Your task to perform on an android device: toggle notification dots Image 0: 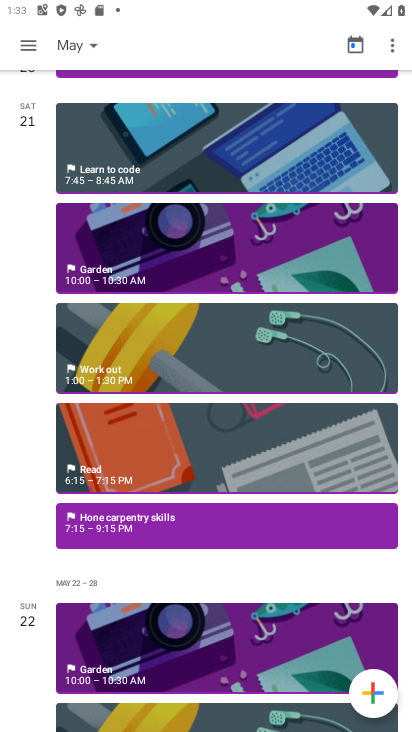
Step 0: press home button
Your task to perform on an android device: toggle notification dots Image 1: 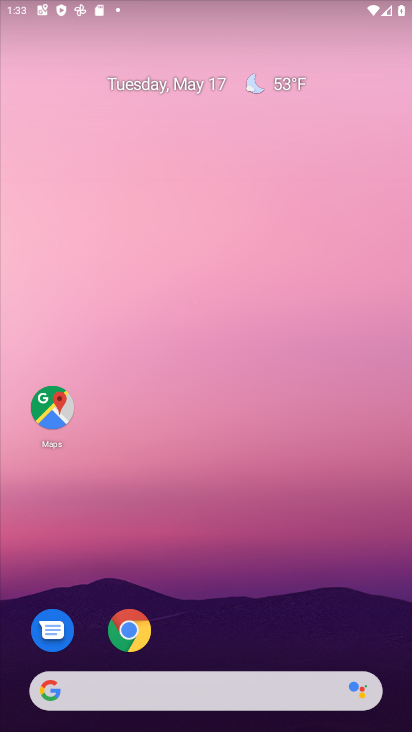
Step 1: drag from (210, 646) to (225, 177)
Your task to perform on an android device: toggle notification dots Image 2: 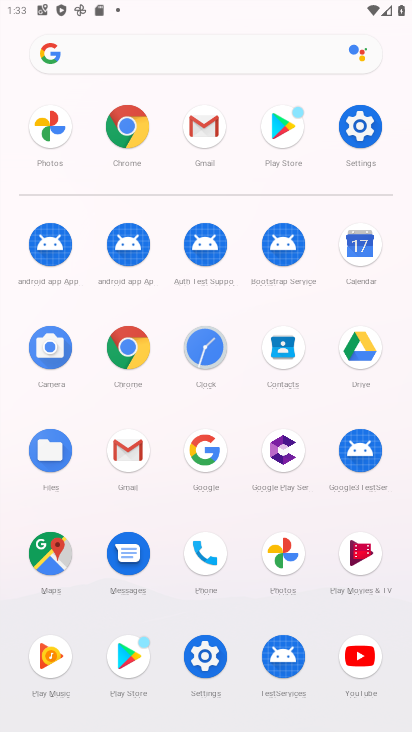
Step 2: click (368, 146)
Your task to perform on an android device: toggle notification dots Image 3: 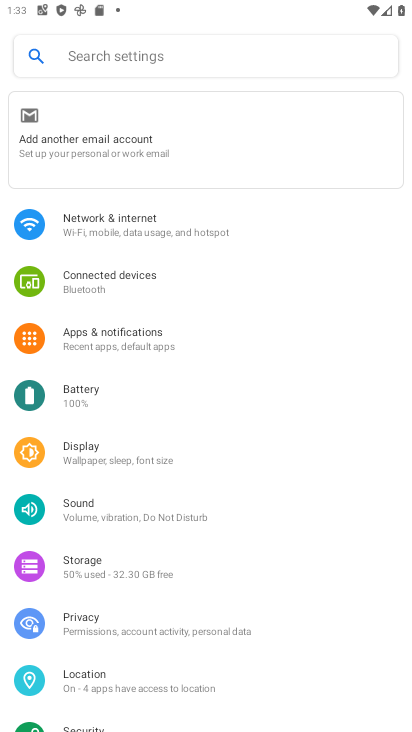
Step 3: click (144, 344)
Your task to perform on an android device: toggle notification dots Image 4: 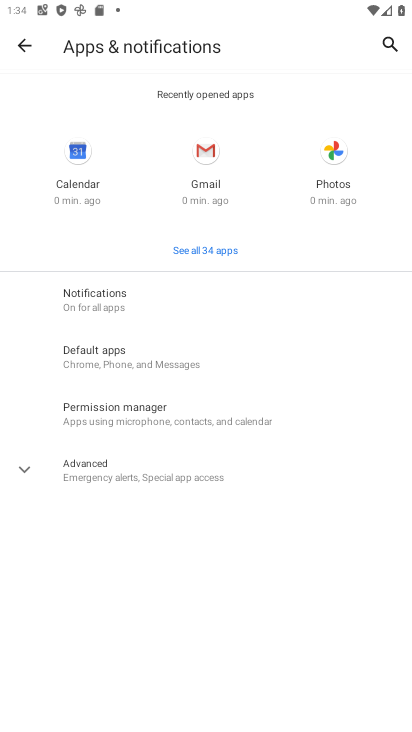
Step 4: click (209, 314)
Your task to perform on an android device: toggle notification dots Image 5: 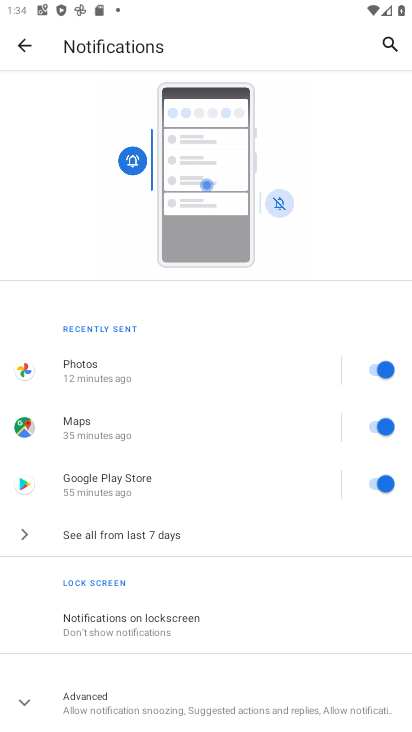
Step 5: drag from (179, 621) to (237, 365)
Your task to perform on an android device: toggle notification dots Image 6: 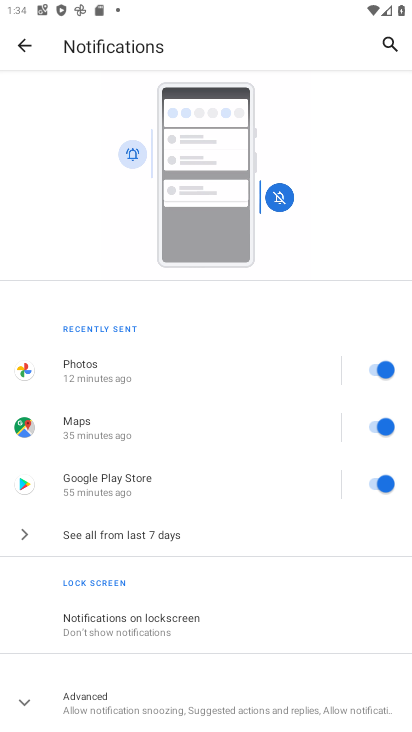
Step 6: click (144, 703)
Your task to perform on an android device: toggle notification dots Image 7: 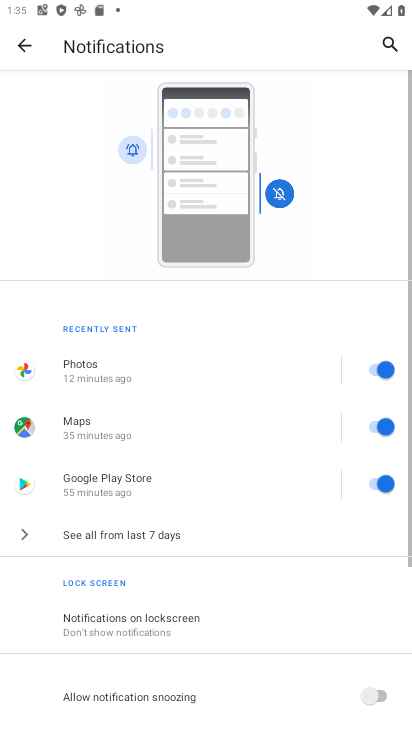
Step 7: drag from (168, 565) to (215, 328)
Your task to perform on an android device: toggle notification dots Image 8: 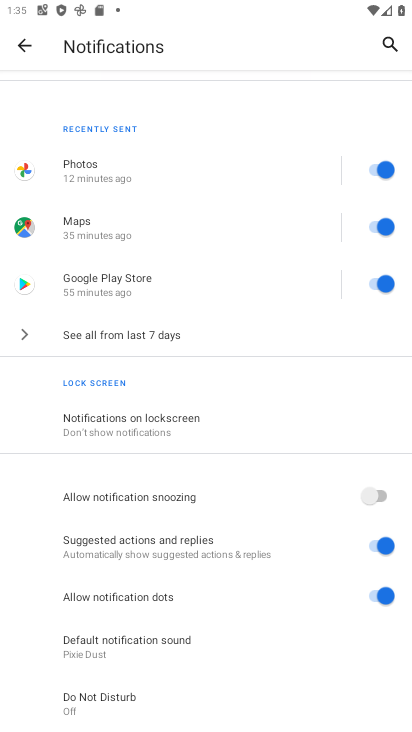
Step 8: click (379, 592)
Your task to perform on an android device: toggle notification dots Image 9: 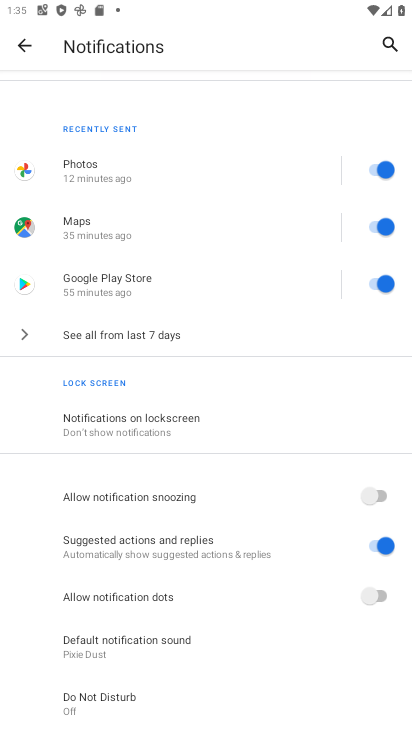
Step 9: task complete